Your task to perform on an android device: Open Google Chrome and click the shortcut for Amazon.com Image 0: 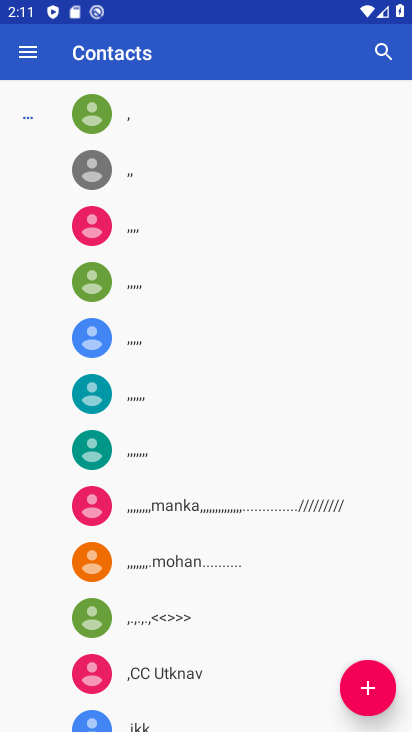
Step 0: press home button
Your task to perform on an android device: Open Google Chrome and click the shortcut for Amazon.com Image 1: 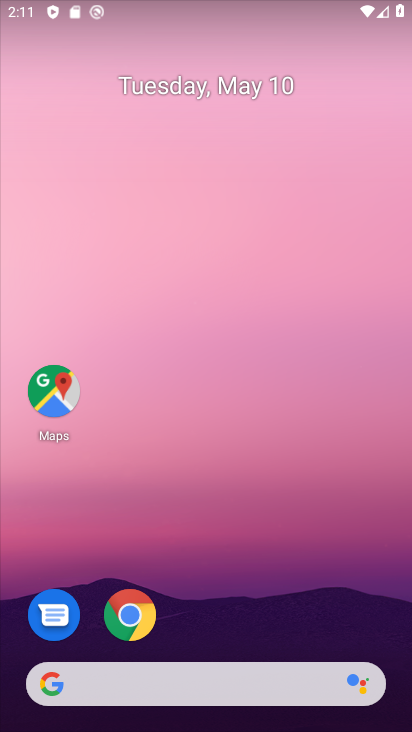
Step 1: click (133, 607)
Your task to perform on an android device: Open Google Chrome and click the shortcut for Amazon.com Image 2: 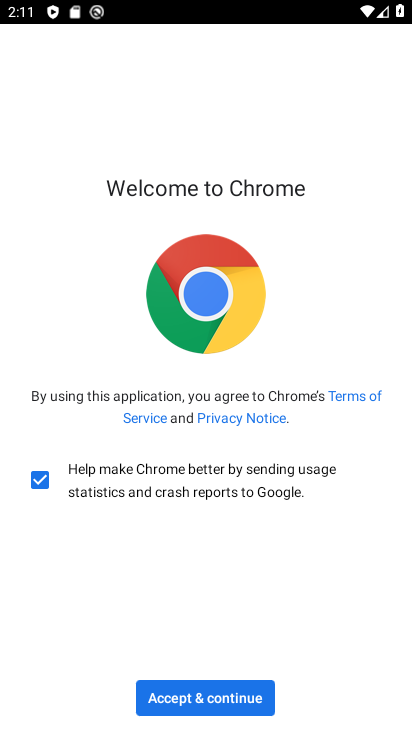
Step 2: click (175, 706)
Your task to perform on an android device: Open Google Chrome and click the shortcut for Amazon.com Image 3: 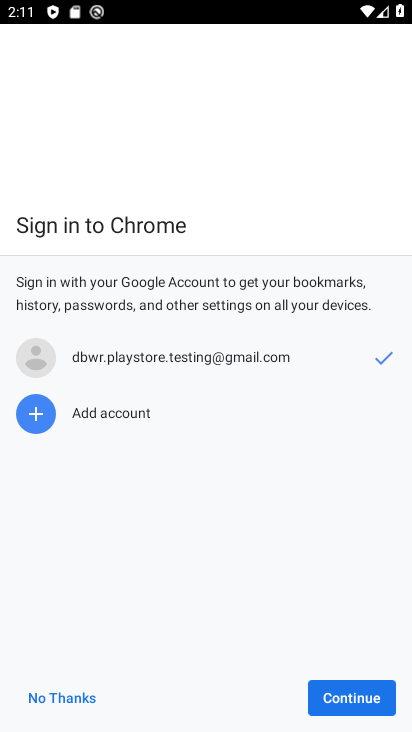
Step 3: click (342, 696)
Your task to perform on an android device: Open Google Chrome and click the shortcut for Amazon.com Image 4: 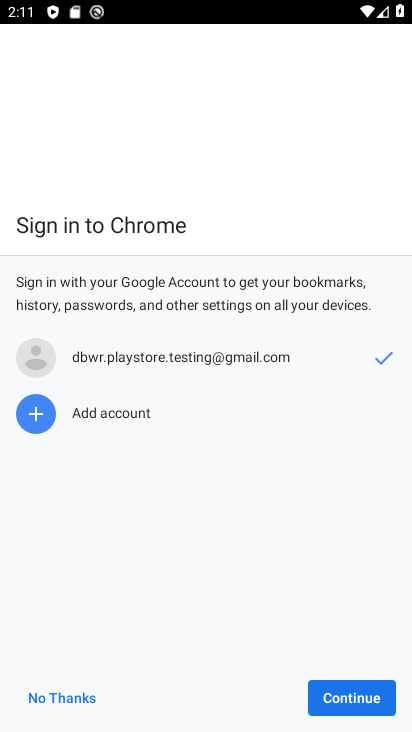
Step 4: click (342, 696)
Your task to perform on an android device: Open Google Chrome and click the shortcut for Amazon.com Image 5: 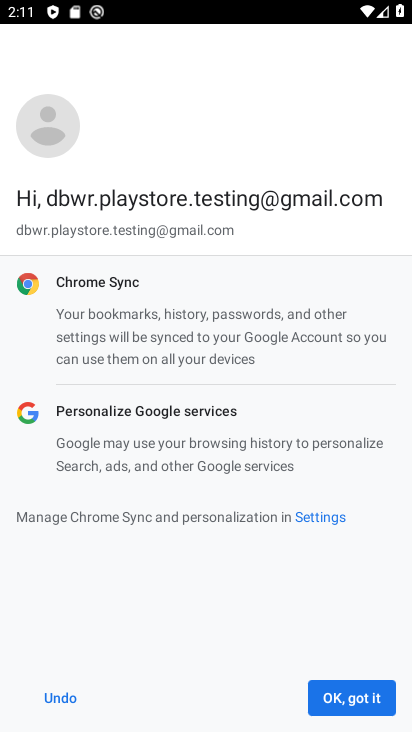
Step 5: click (342, 696)
Your task to perform on an android device: Open Google Chrome and click the shortcut for Amazon.com Image 6: 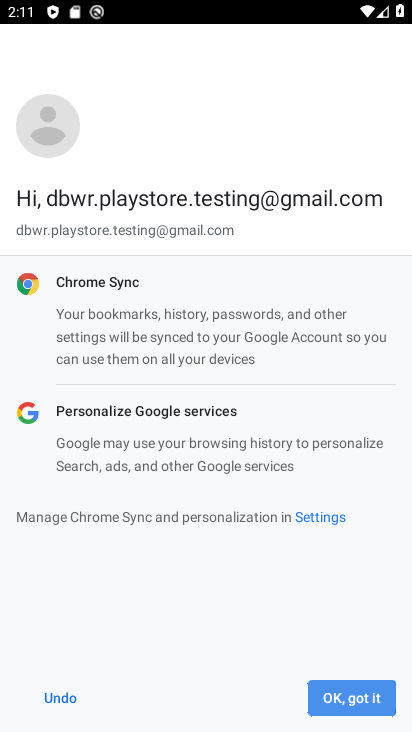
Step 6: click (342, 696)
Your task to perform on an android device: Open Google Chrome and click the shortcut for Amazon.com Image 7: 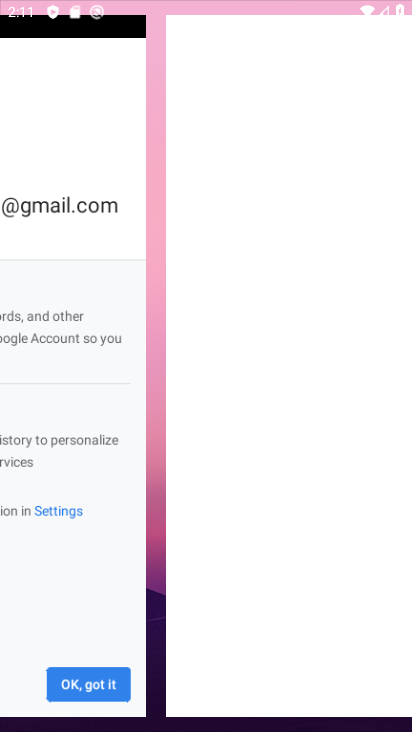
Step 7: click (342, 696)
Your task to perform on an android device: Open Google Chrome and click the shortcut for Amazon.com Image 8: 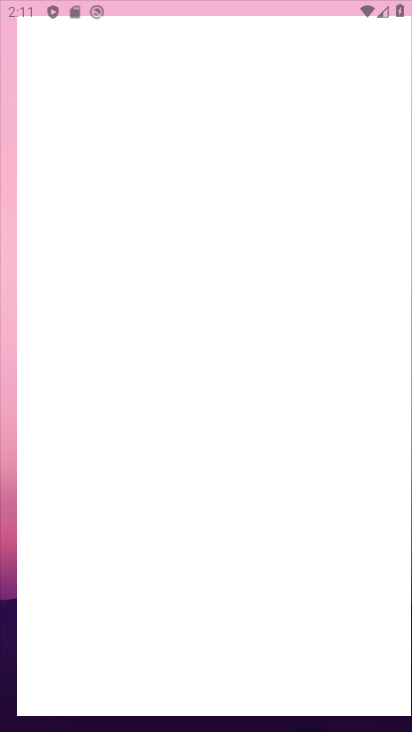
Step 8: click (342, 696)
Your task to perform on an android device: Open Google Chrome and click the shortcut for Amazon.com Image 9: 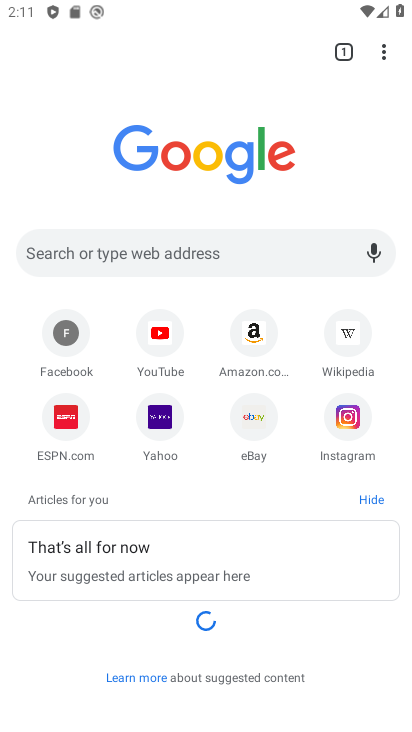
Step 9: click (260, 329)
Your task to perform on an android device: Open Google Chrome and click the shortcut for Amazon.com Image 10: 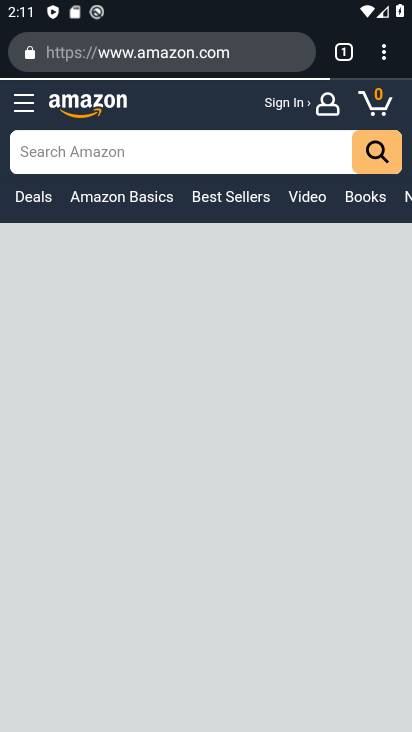
Step 10: task complete